Your task to perform on an android device: Open Maps and search for coffee Image 0: 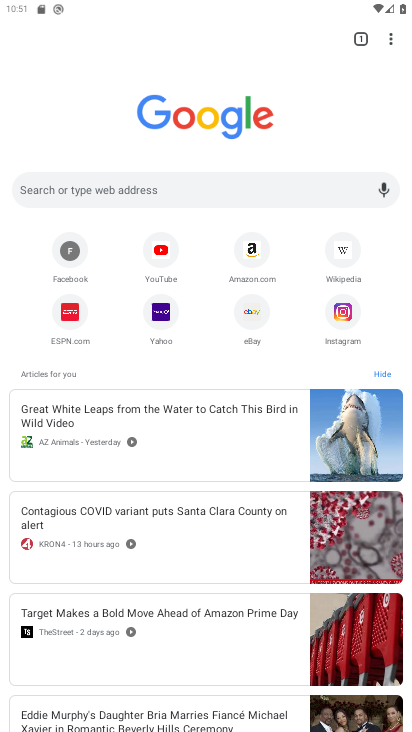
Step 0: press home button
Your task to perform on an android device: Open Maps and search for coffee Image 1: 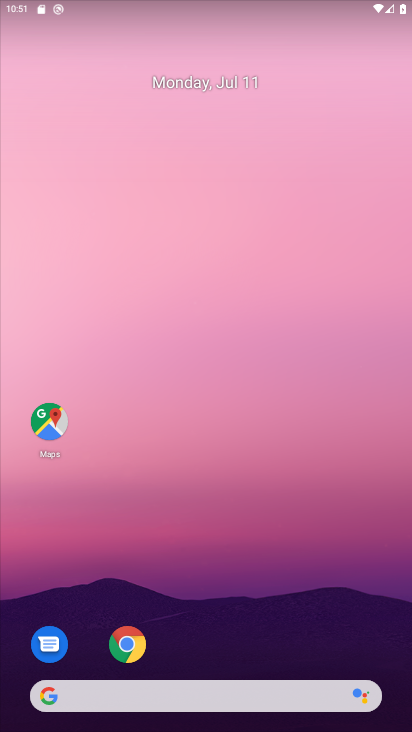
Step 1: click (49, 414)
Your task to perform on an android device: Open Maps and search for coffee Image 2: 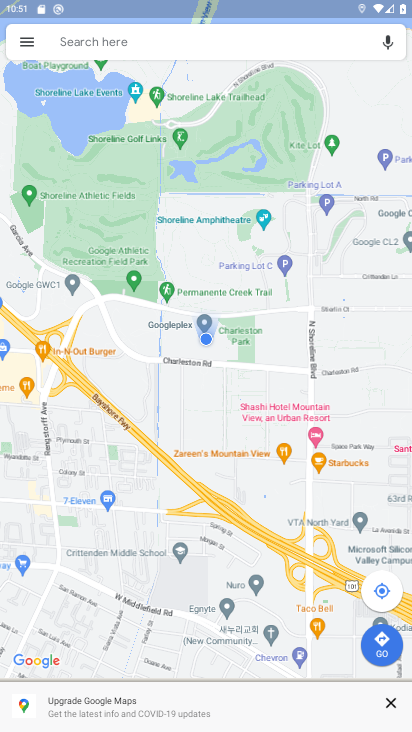
Step 2: click (295, 38)
Your task to perform on an android device: Open Maps and search for coffee Image 3: 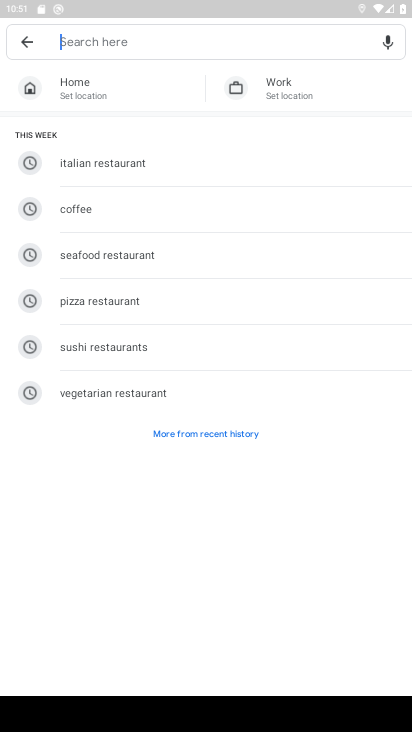
Step 3: type "coffee"
Your task to perform on an android device: Open Maps and search for coffee Image 4: 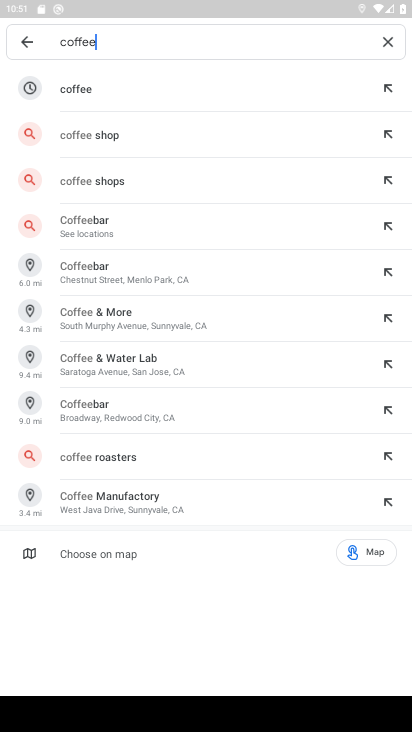
Step 4: click (189, 87)
Your task to perform on an android device: Open Maps and search for coffee Image 5: 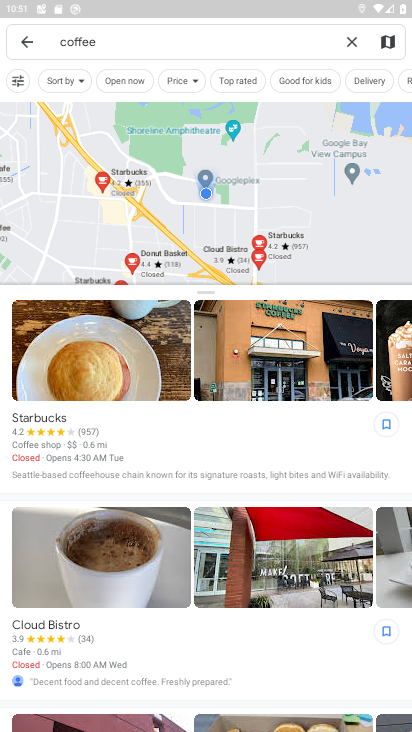
Step 5: task complete